Your task to perform on an android device: turn off javascript in the chrome app Image 0: 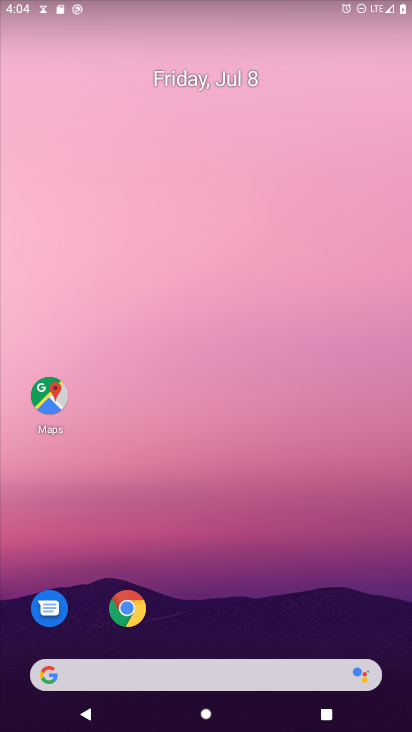
Step 0: drag from (305, 672) to (382, 37)
Your task to perform on an android device: turn off javascript in the chrome app Image 1: 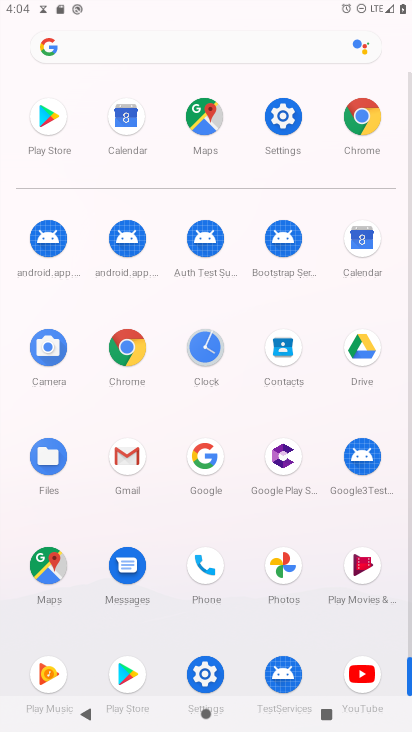
Step 1: click (118, 351)
Your task to perform on an android device: turn off javascript in the chrome app Image 2: 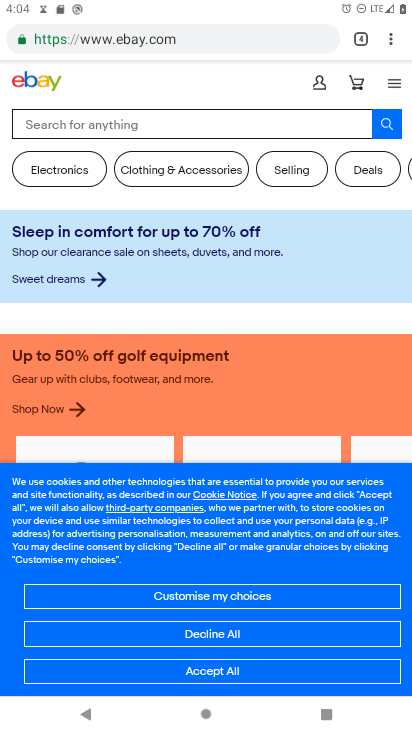
Step 2: drag from (387, 35) to (263, 473)
Your task to perform on an android device: turn off javascript in the chrome app Image 3: 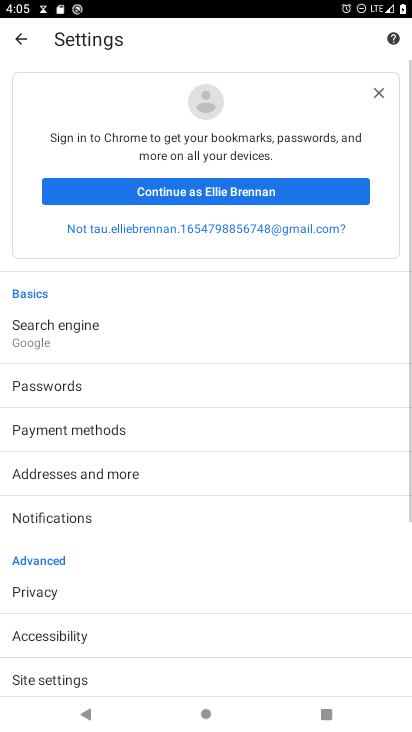
Step 3: drag from (143, 648) to (199, 240)
Your task to perform on an android device: turn off javascript in the chrome app Image 4: 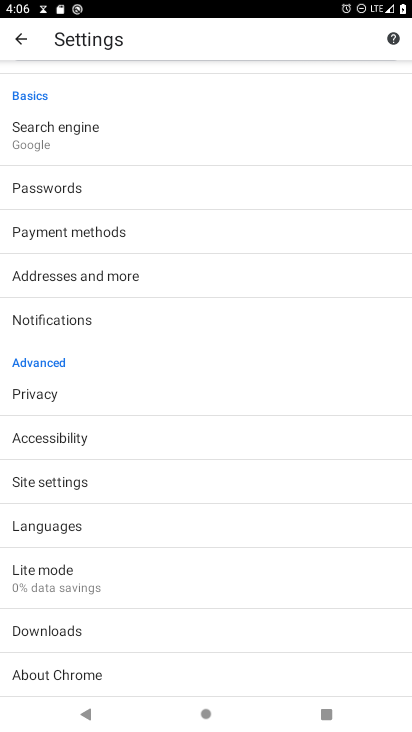
Step 4: click (97, 486)
Your task to perform on an android device: turn off javascript in the chrome app Image 5: 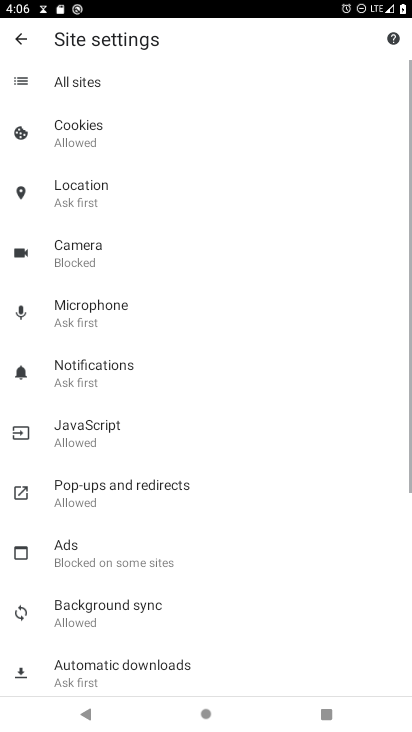
Step 5: click (129, 428)
Your task to perform on an android device: turn off javascript in the chrome app Image 6: 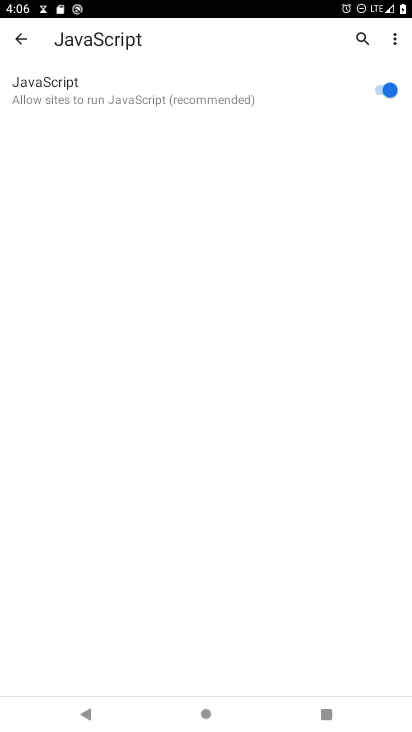
Step 6: click (385, 86)
Your task to perform on an android device: turn off javascript in the chrome app Image 7: 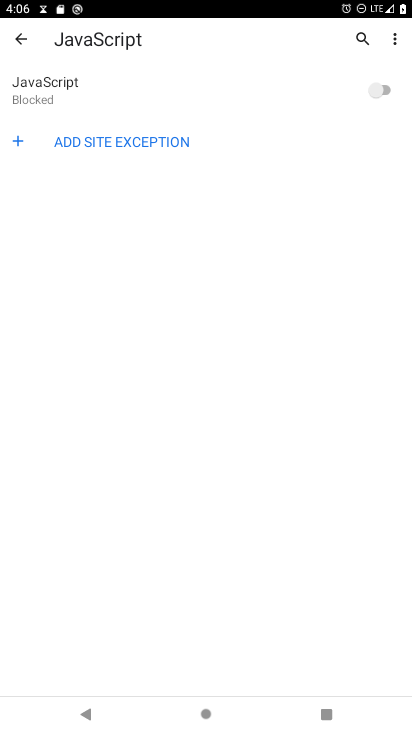
Step 7: task complete